Your task to perform on an android device: find which apps use the phone's location Image 0: 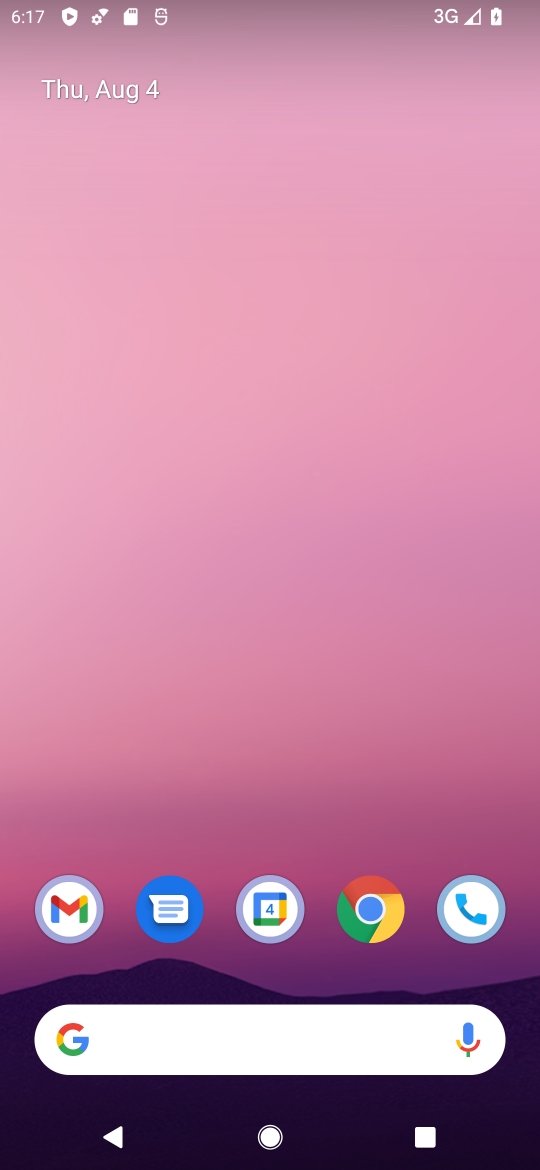
Step 0: drag from (177, 943) to (206, 100)
Your task to perform on an android device: find which apps use the phone's location Image 1: 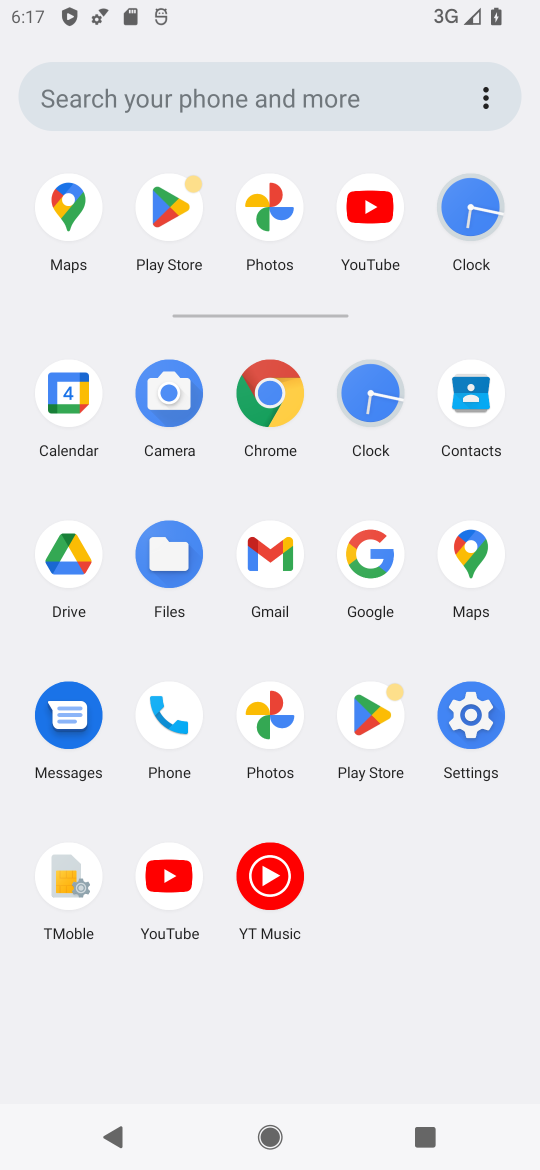
Step 1: click (477, 725)
Your task to perform on an android device: find which apps use the phone's location Image 2: 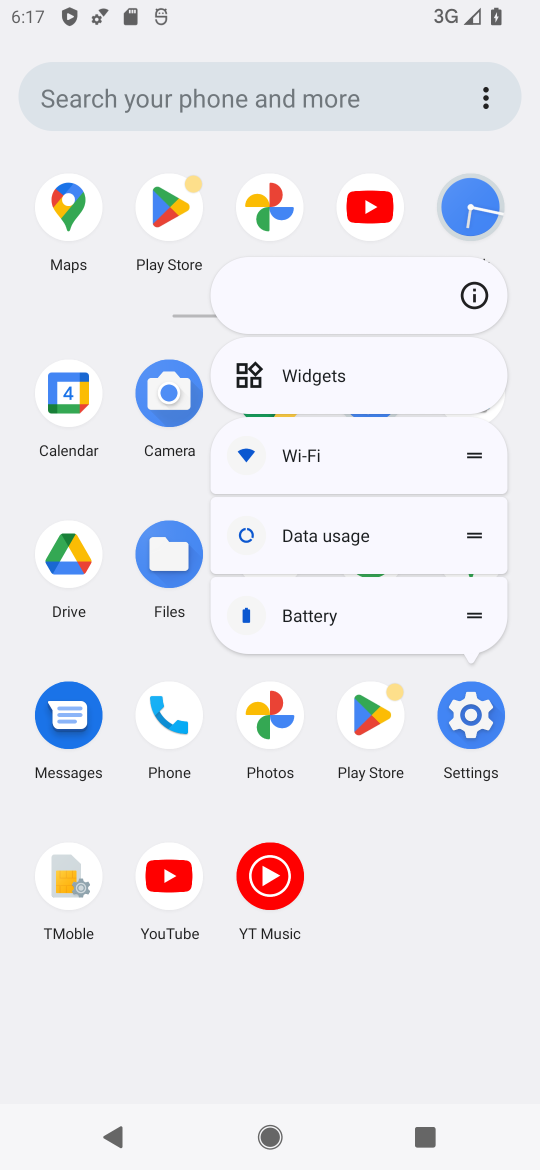
Step 2: click (477, 722)
Your task to perform on an android device: find which apps use the phone's location Image 3: 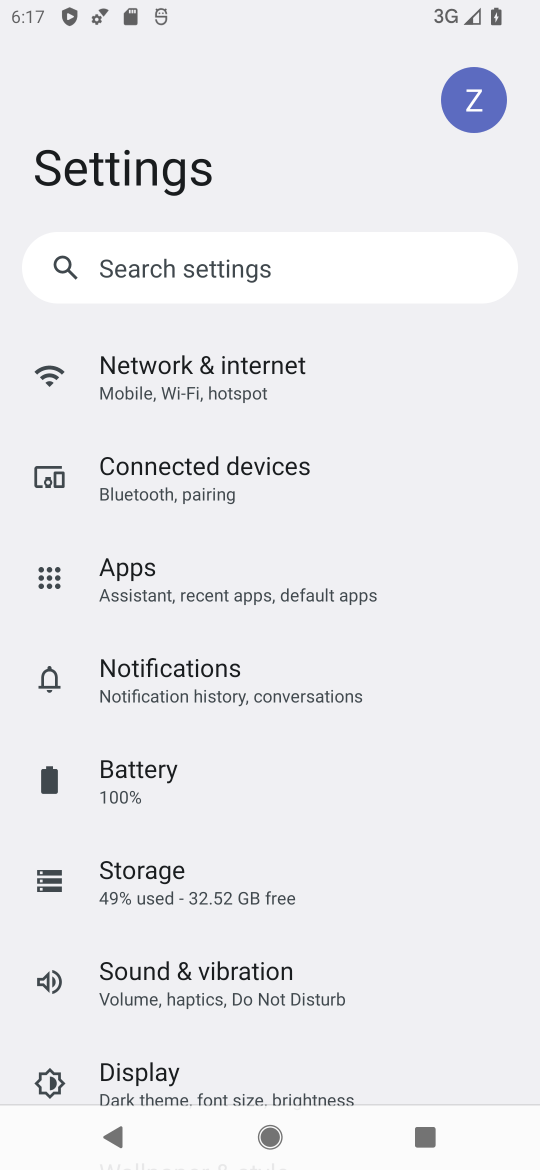
Step 3: click (471, 701)
Your task to perform on an android device: find which apps use the phone's location Image 4: 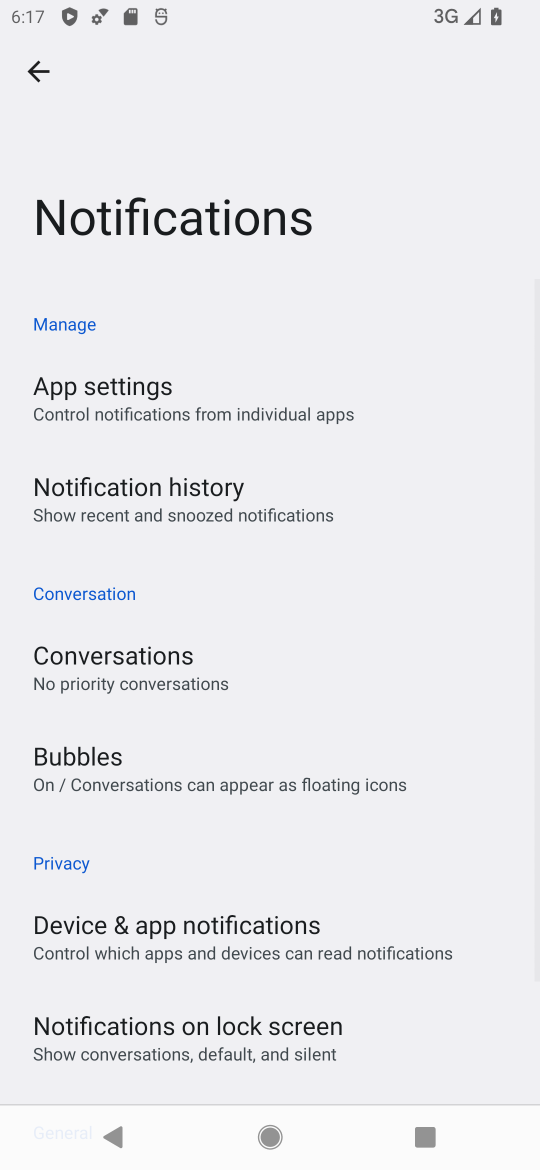
Step 4: click (36, 68)
Your task to perform on an android device: find which apps use the phone's location Image 5: 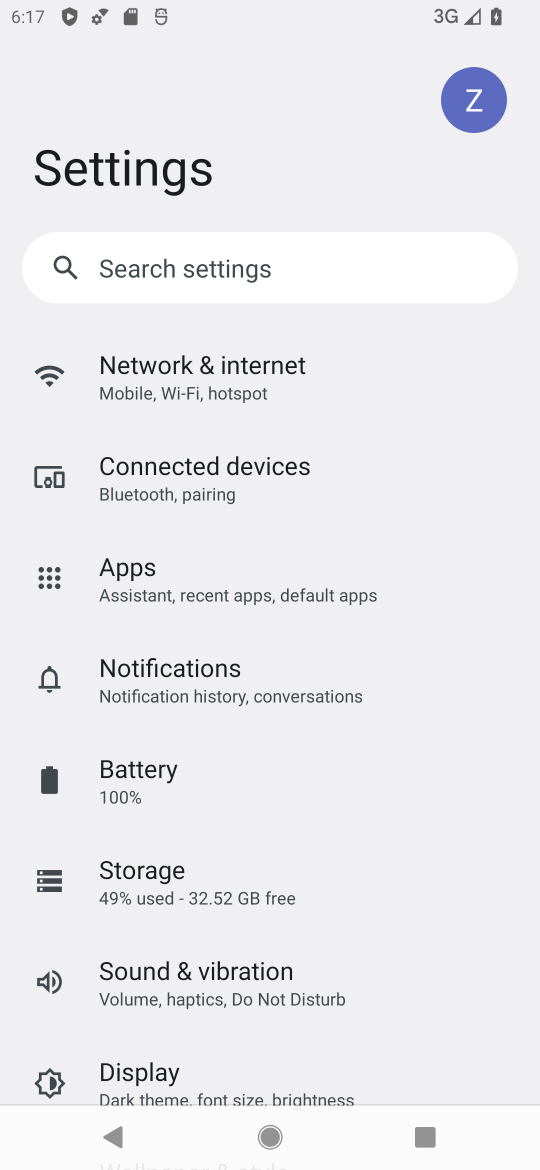
Step 5: drag from (126, 972) to (272, 278)
Your task to perform on an android device: find which apps use the phone's location Image 6: 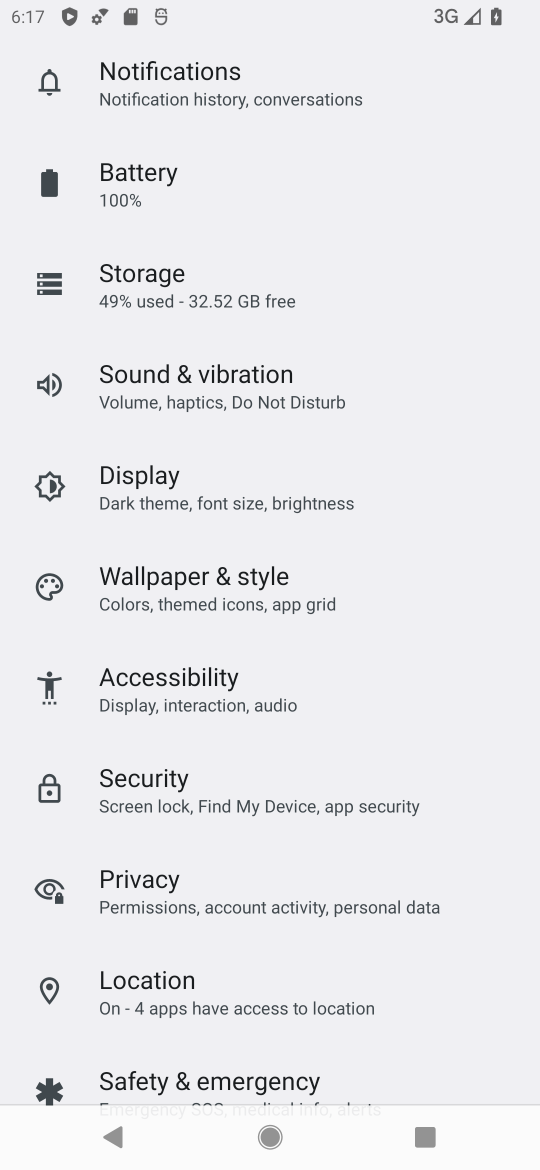
Step 6: click (155, 1001)
Your task to perform on an android device: find which apps use the phone's location Image 7: 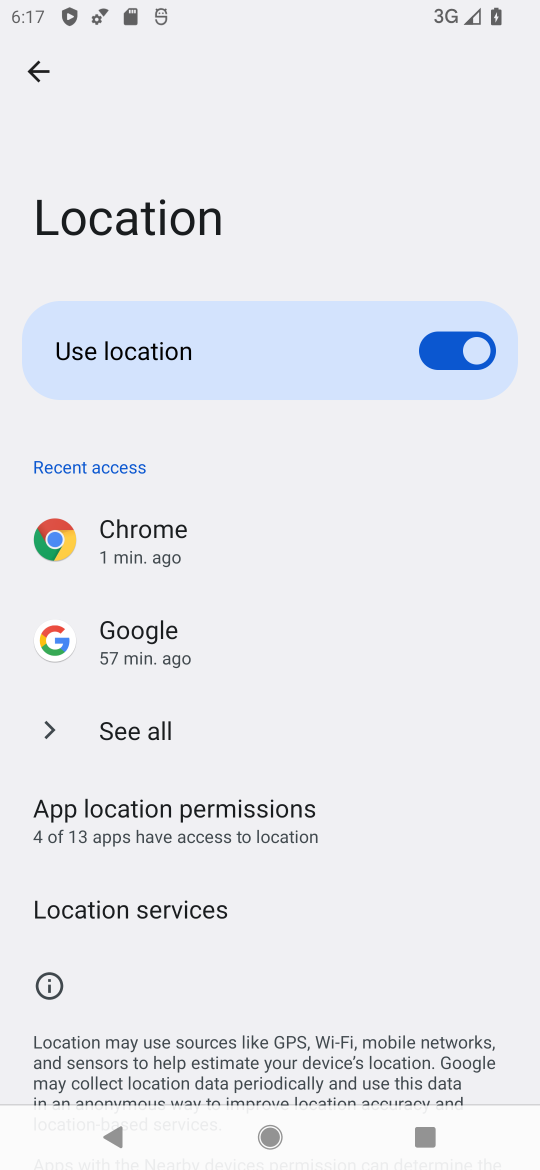
Step 7: click (117, 838)
Your task to perform on an android device: find which apps use the phone's location Image 8: 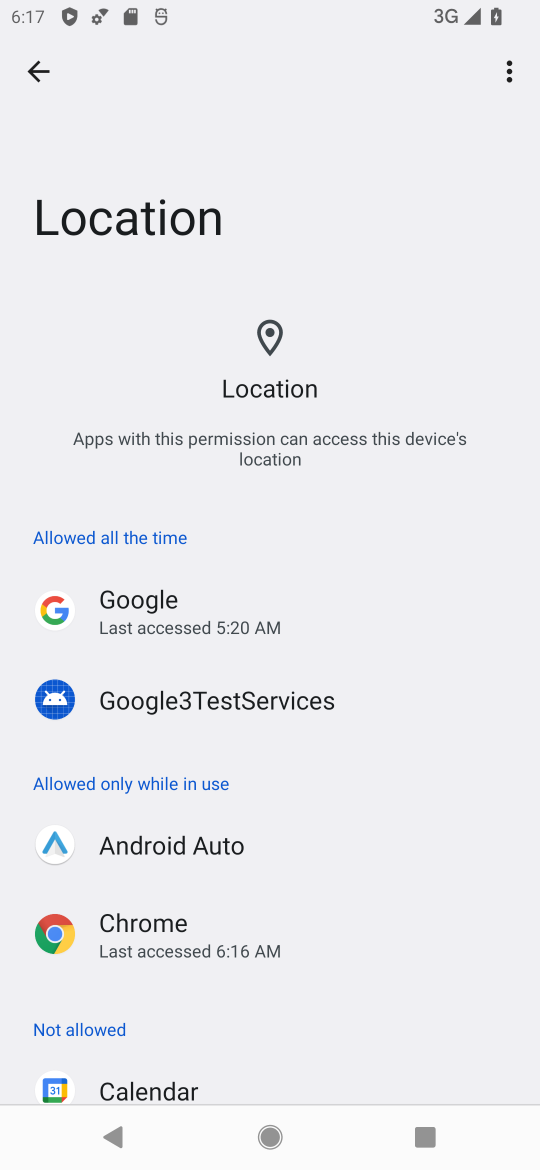
Step 8: task complete